Your task to perform on an android device: turn notification dots off Image 0: 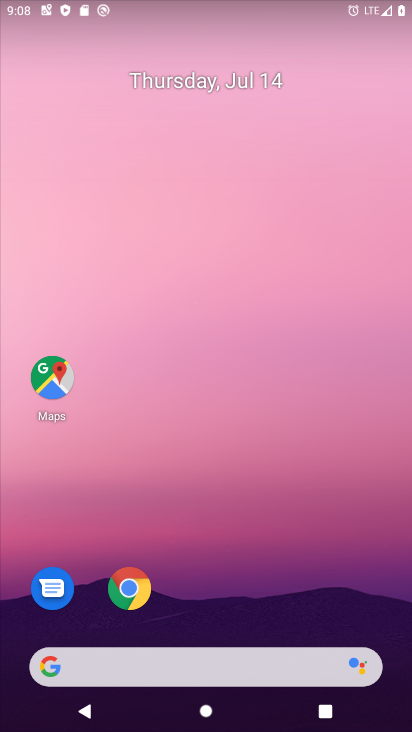
Step 0: drag from (292, 518) to (315, 0)
Your task to perform on an android device: turn notification dots off Image 1: 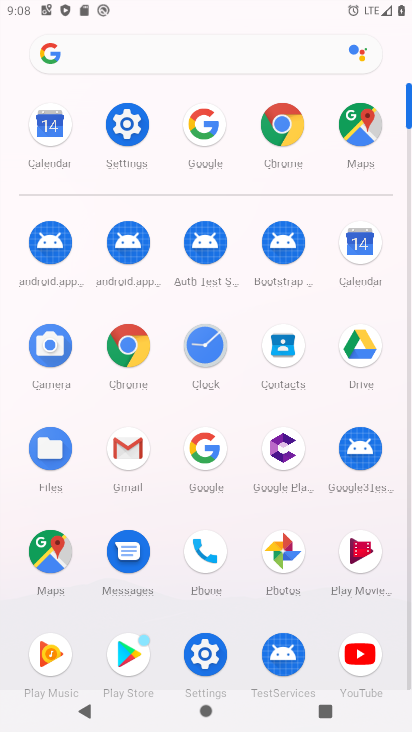
Step 1: click (125, 126)
Your task to perform on an android device: turn notification dots off Image 2: 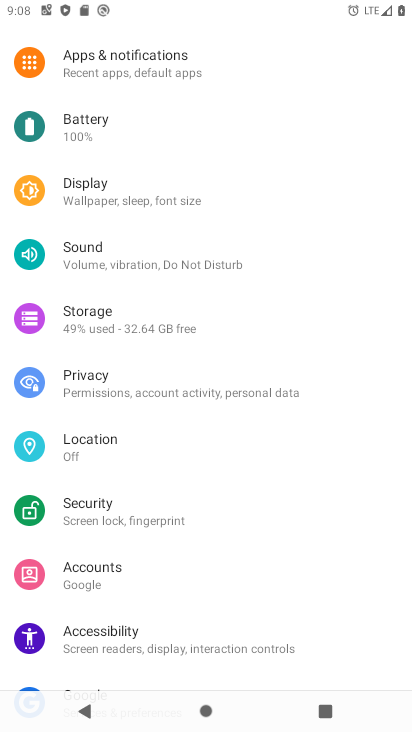
Step 2: drag from (125, 126) to (134, 599)
Your task to perform on an android device: turn notification dots off Image 3: 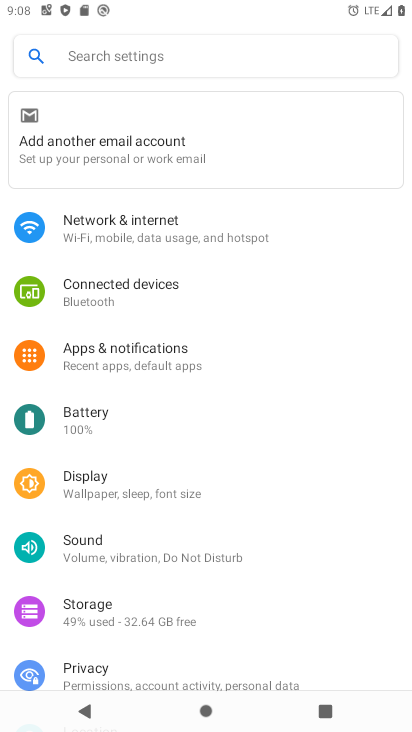
Step 3: click (154, 356)
Your task to perform on an android device: turn notification dots off Image 4: 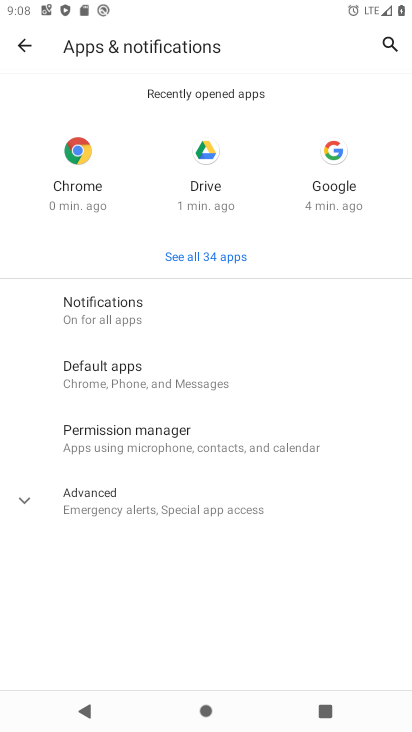
Step 4: click (99, 299)
Your task to perform on an android device: turn notification dots off Image 5: 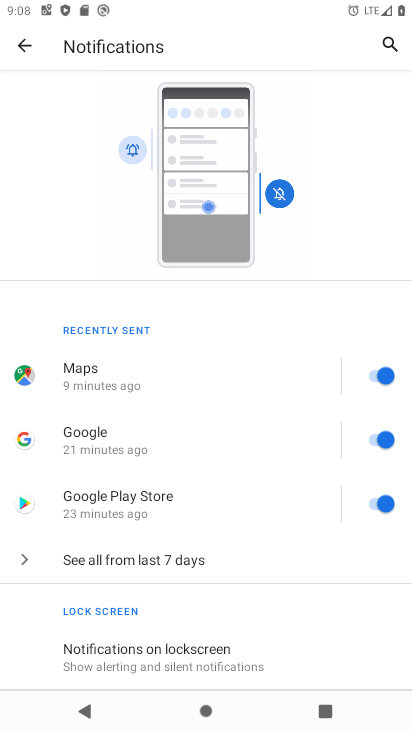
Step 5: drag from (190, 645) to (226, 201)
Your task to perform on an android device: turn notification dots off Image 6: 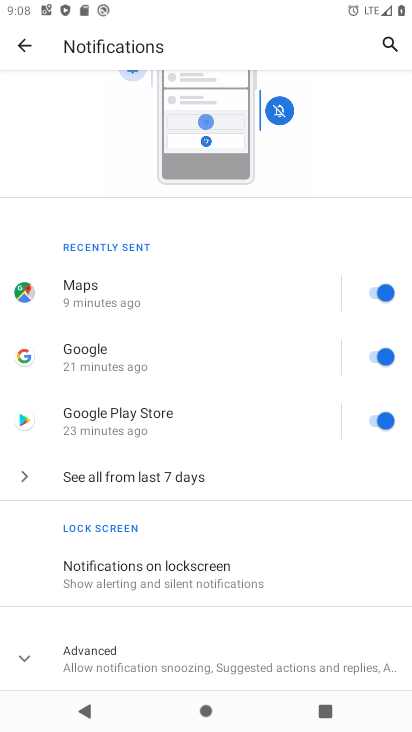
Step 6: click (145, 658)
Your task to perform on an android device: turn notification dots off Image 7: 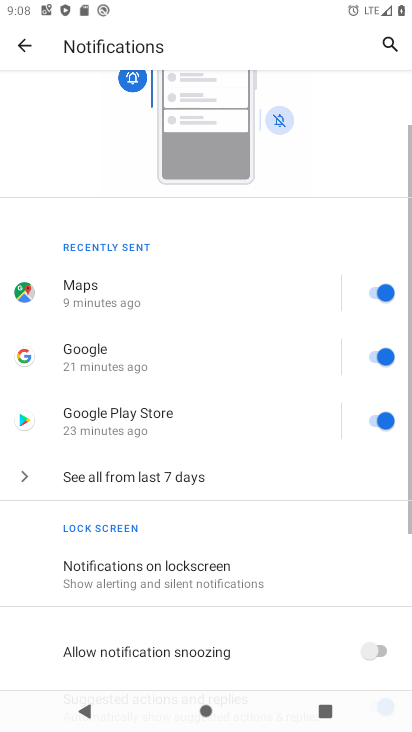
Step 7: drag from (148, 644) to (188, 214)
Your task to perform on an android device: turn notification dots off Image 8: 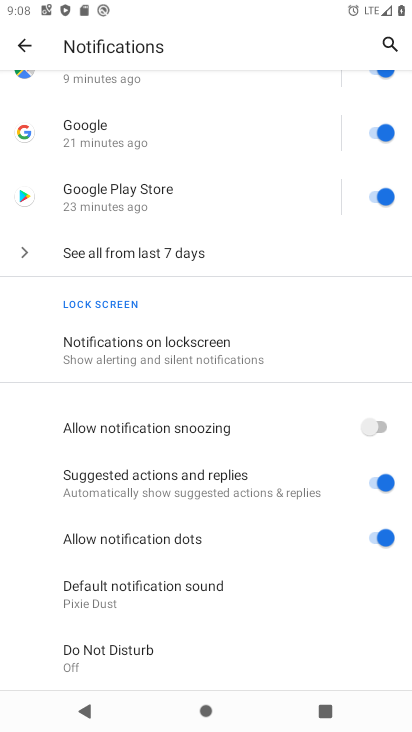
Step 8: click (378, 541)
Your task to perform on an android device: turn notification dots off Image 9: 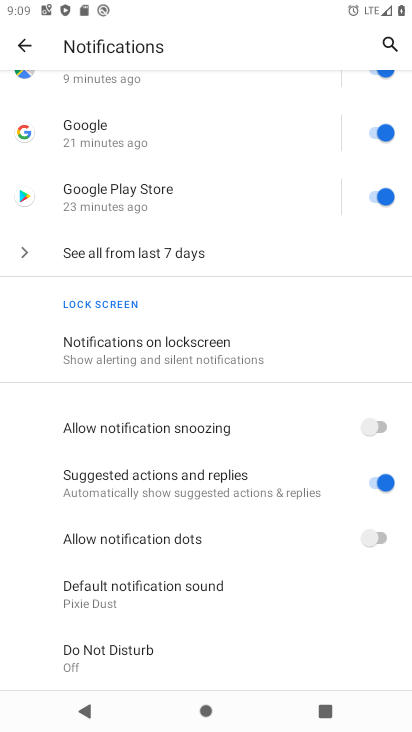
Step 9: task complete